Your task to perform on an android device: Open Google Chrome Image 0: 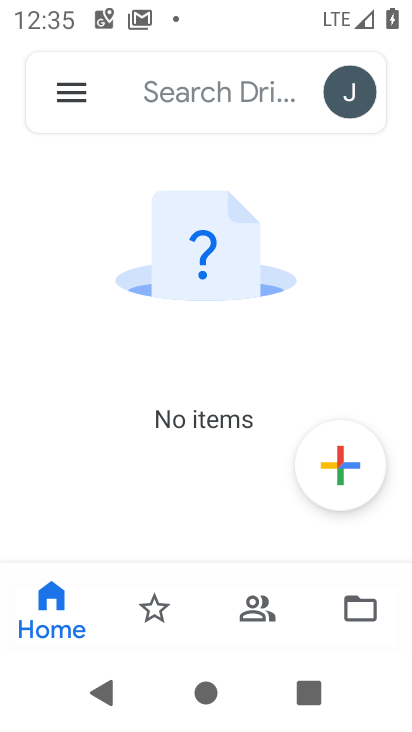
Step 0: press home button
Your task to perform on an android device: Open Google Chrome Image 1: 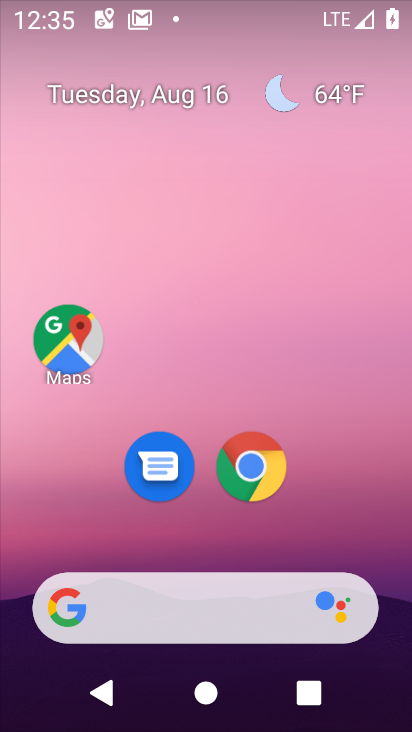
Step 1: drag from (135, 548) to (169, 86)
Your task to perform on an android device: Open Google Chrome Image 2: 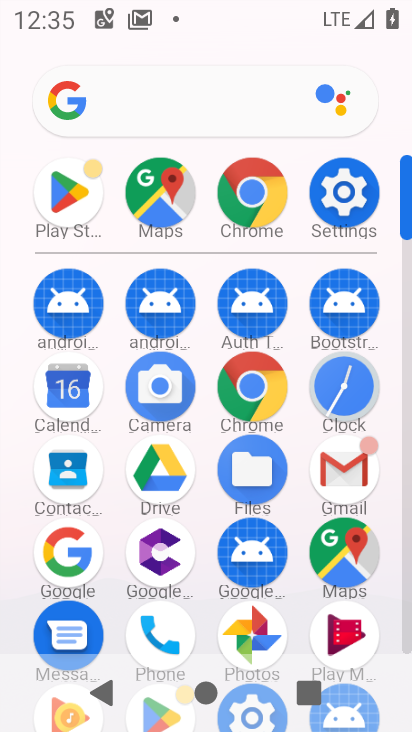
Step 2: click (241, 382)
Your task to perform on an android device: Open Google Chrome Image 3: 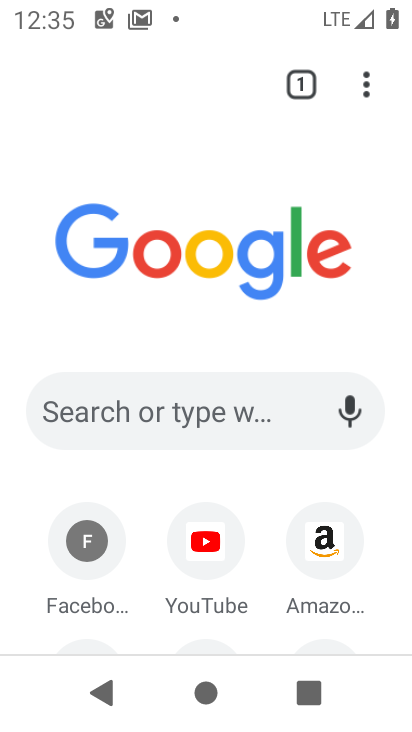
Step 3: task complete